Your task to perform on an android device: Open Amazon Image 0: 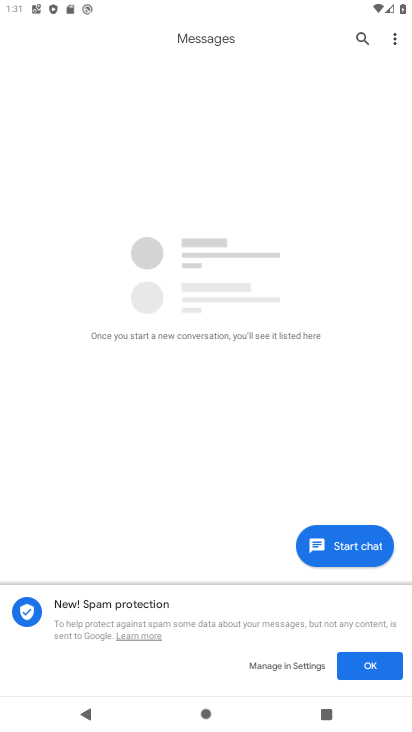
Step 0: press home button
Your task to perform on an android device: Open Amazon Image 1: 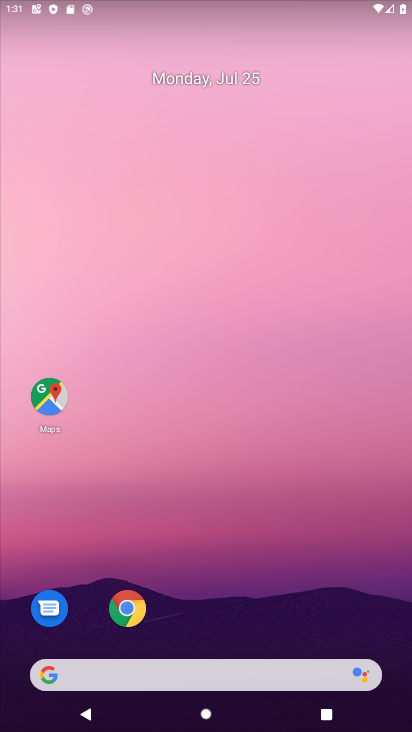
Step 1: drag from (227, 641) to (332, 29)
Your task to perform on an android device: Open Amazon Image 2: 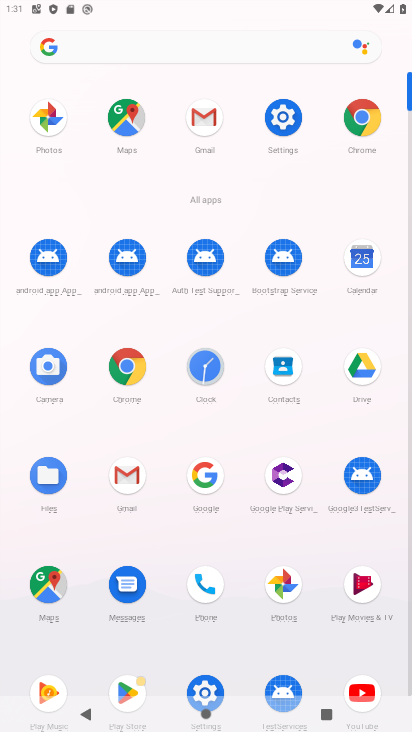
Step 2: click (365, 115)
Your task to perform on an android device: Open Amazon Image 3: 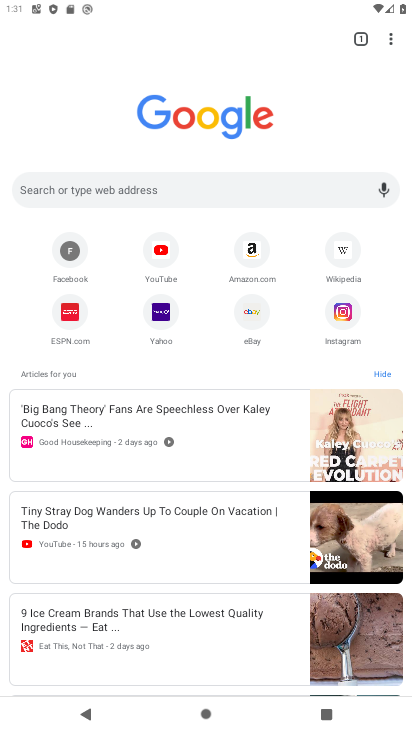
Step 3: click (252, 259)
Your task to perform on an android device: Open Amazon Image 4: 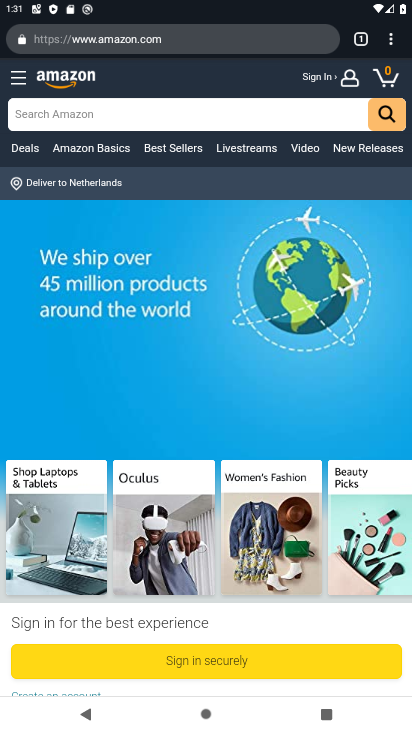
Step 4: task complete